Your task to perform on an android device: Is it going to rain this weekend? Image 0: 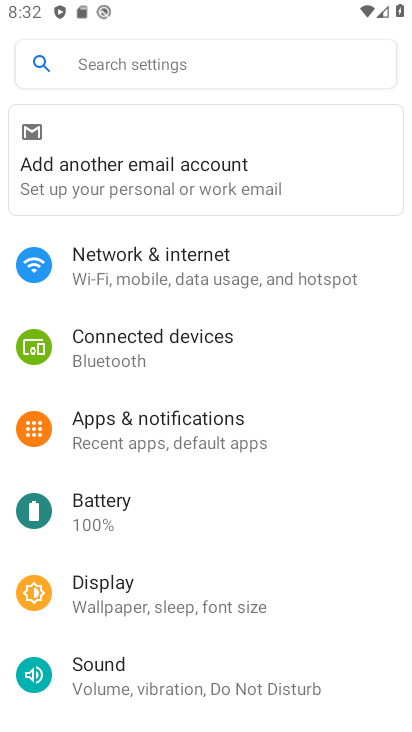
Step 0: press home button
Your task to perform on an android device: Is it going to rain this weekend? Image 1: 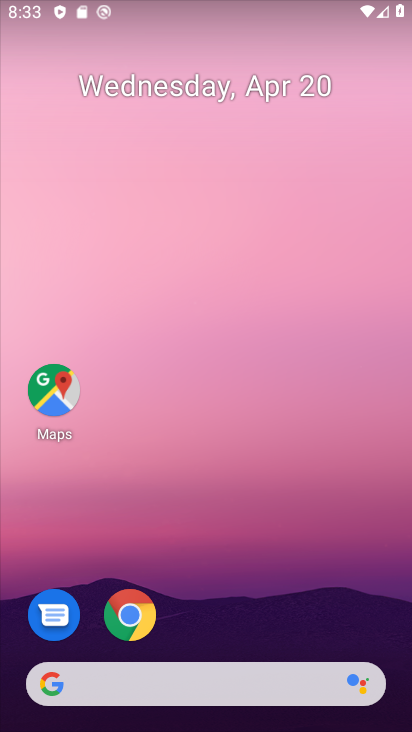
Step 1: click (133, 629)
Your task to perform on an android device: Is it going to rain this weekend? Image 2: 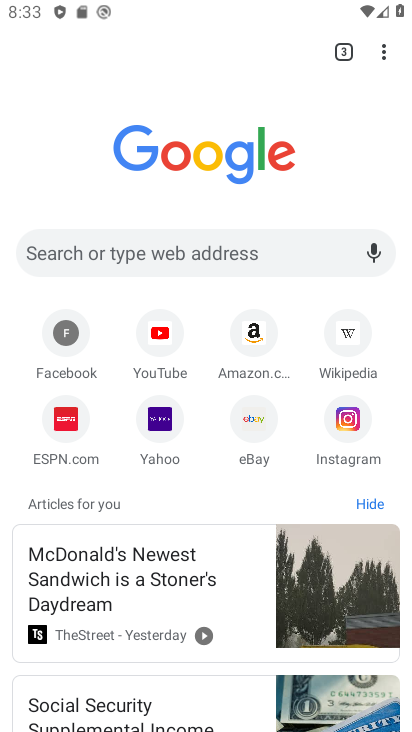
Step 2: click (247, 250)
Your task to perform on an android device: Is it going to rain this weekend? Image 3: 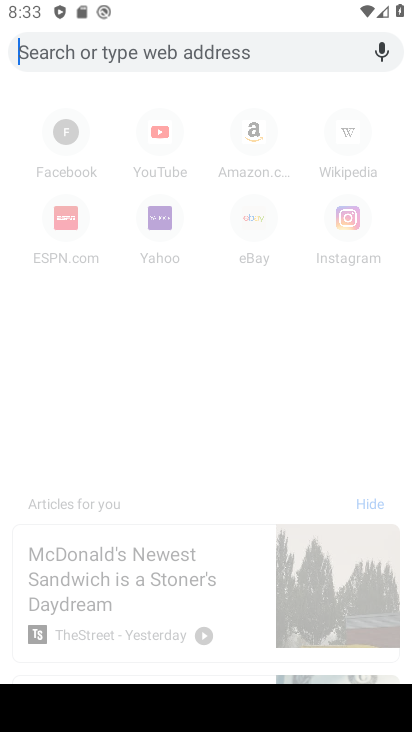
Step 3: type "Is it going to rain this weekend?"
Your task to perform on an android device: Is it going to rain this weekend? Image 4: 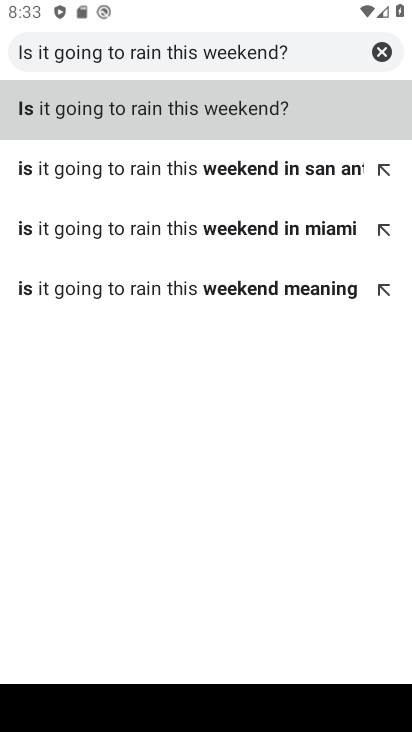
Step 4: click (288, 97)
Your task to perform on an android device: Is it going to rain this weekend? Image 5: 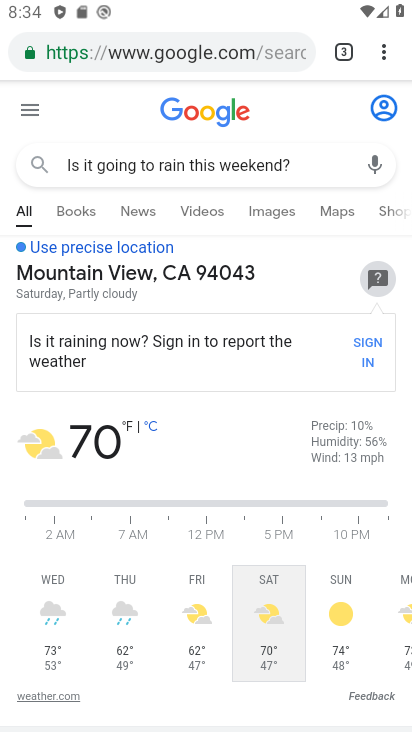
Step 5: task complete